Your task to perform on an android device: see creations saved in the google photos Image 0: 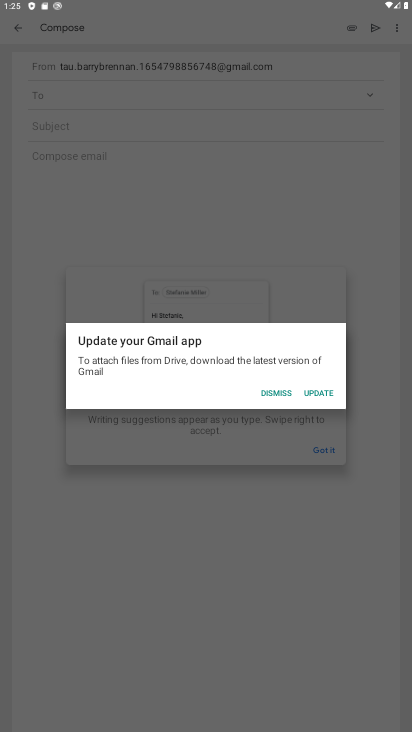
Step 0: press home button
Your task to perform on an android device: see creations saved in the google photos Image 1: 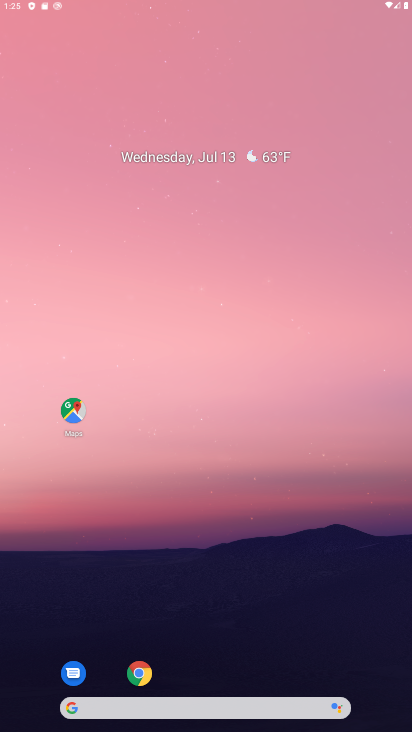
Step 1: drag from (183, 603) to (198, 427)
Your task to perform on an android device: see creations saved in the google photos Image 2: 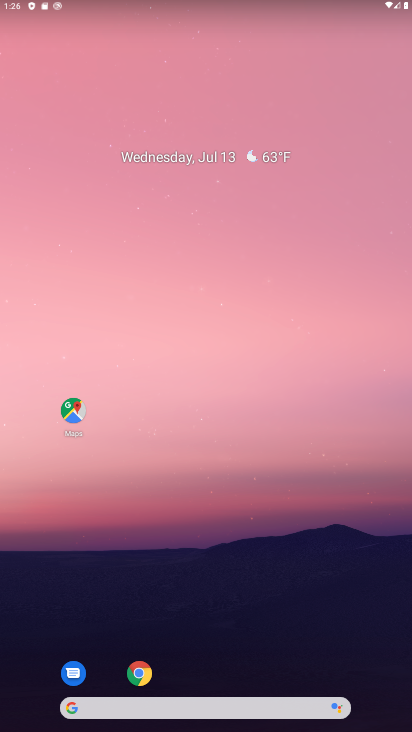
Step 2: drag from (195, 658) to (216, 337)
Your task to perform on an android device: see creations saved in the google photos Image 3: 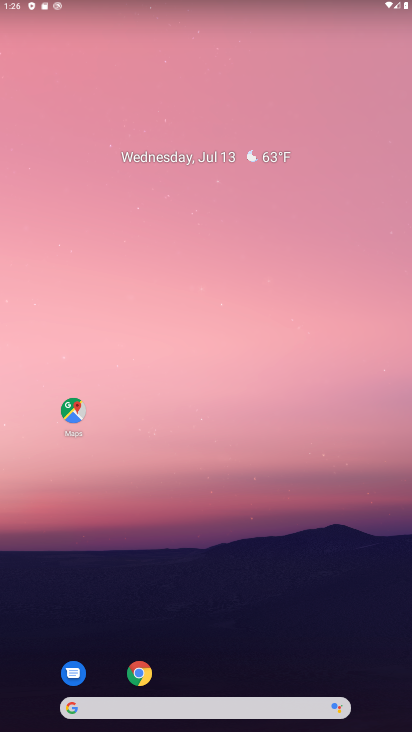
Step 3: drag from (220, 665) to (214, 216)
Your task to perform on an android device: see creations saved in the google photos Image 4: 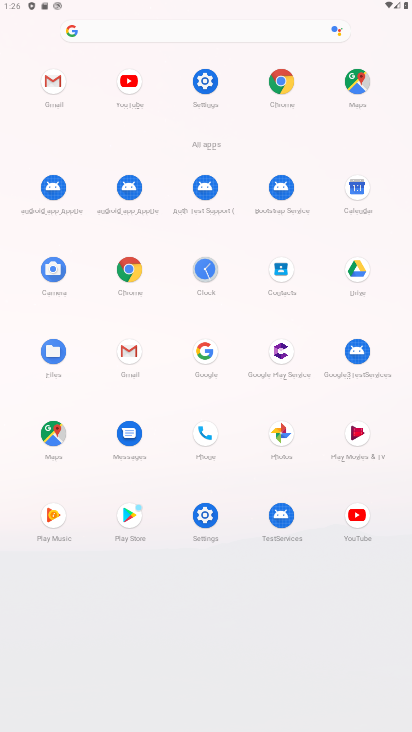
Step 4: click (287, 423)
Your task to perform on an android device: see creations saved in the google photos Image 5: 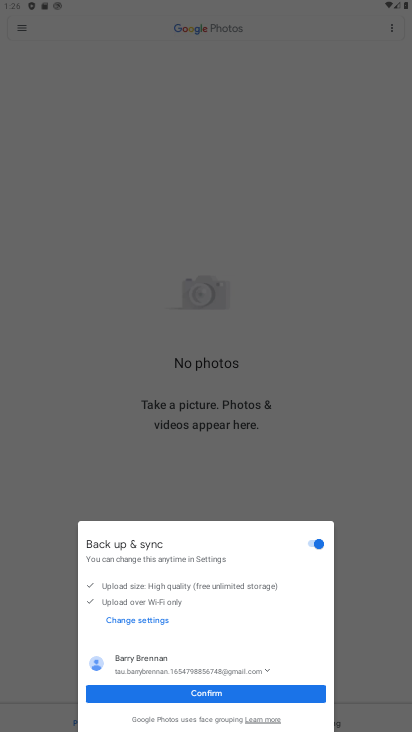
Step 5: click (199, 695)
Your task to perform on an android device: see creations saved in the google photos Image 6: 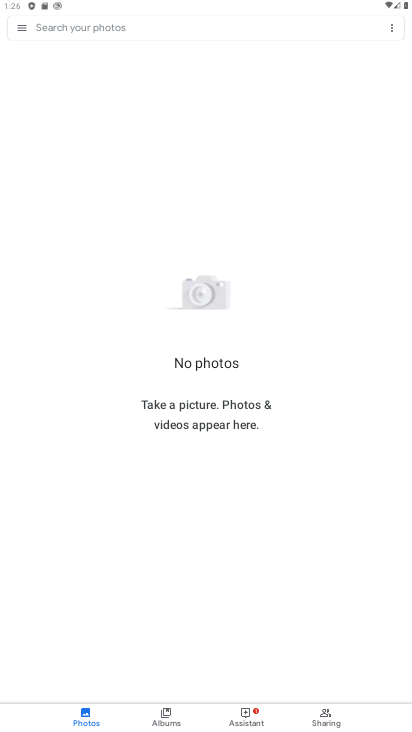
Step 6: click (165, 707)
Your task to perform on an android device: see creations saved in the google photos Image 7: 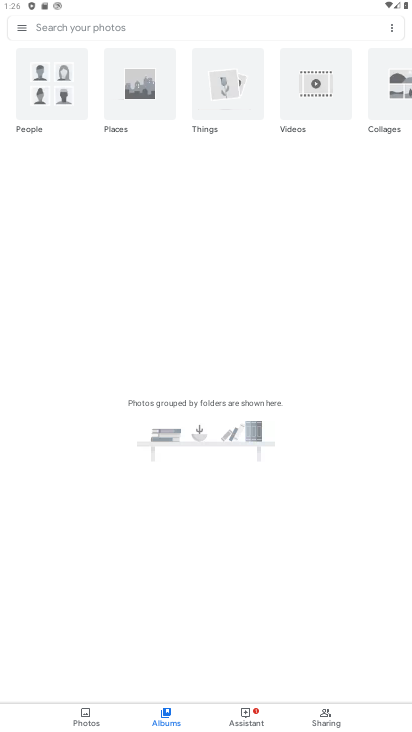
Step 7: task complete